Your task to perform on an android device: turn off javascript in the chrome app Image 0: 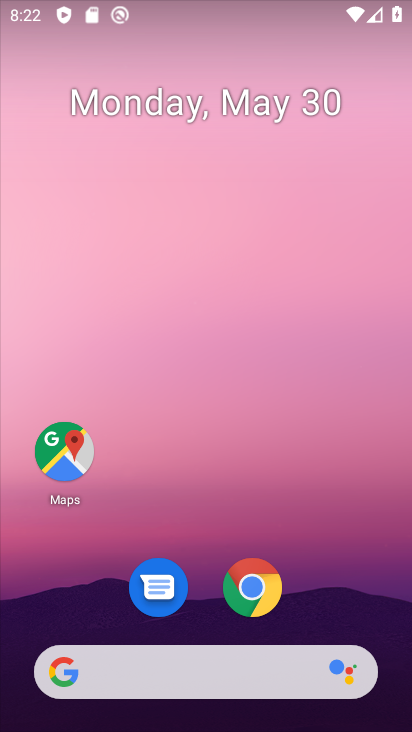
Step 0: click (251, 585)
Your task to perform on an android device: turn off javascript in the chrome app Image 1: 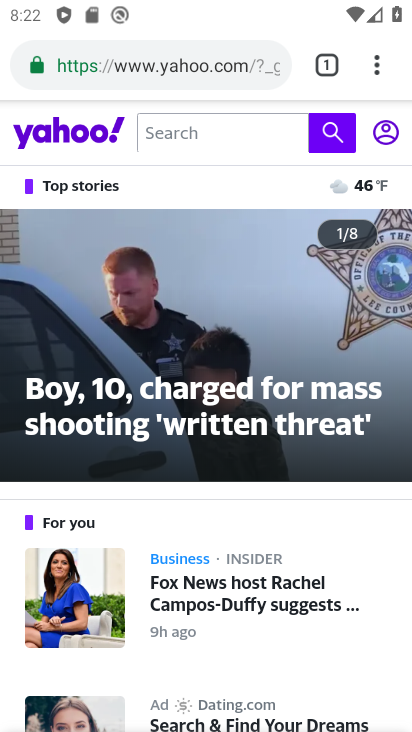
Step 1: click (378, 72)
Your task to perform on an android device: turn off javascript in the chrome app Image 2: 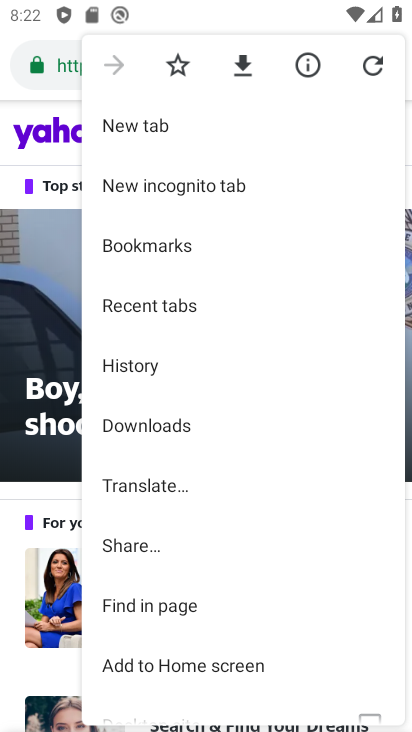
Step 2: drag from (168, 542) to (208, 198)
Your task to perform on an android device: turn off javascript in the chrome app Image 3: 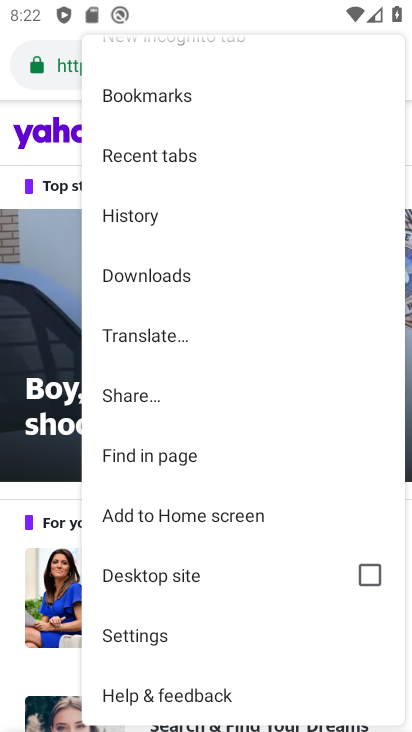
Step 3: click (162, 633)
Your task to perform on an android device: turn off javascript in the chrome app Image 4: 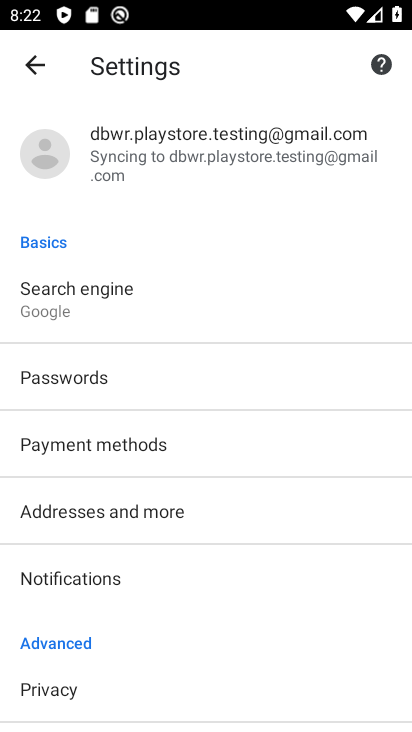
Step 4: drag from (147, 514) to (233, 147)
Your task to perform on an android device: turn off javascript in the chrome app Image 5: 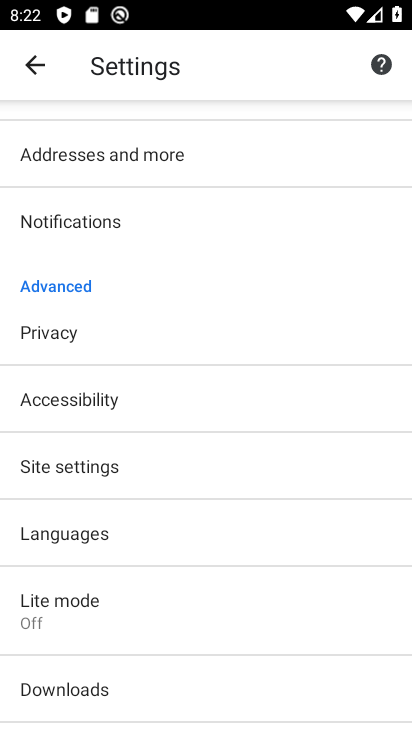
Step 5: click (120, 475)
Your task to perform on an android device: turn off javascript in the chrome app Image 6: 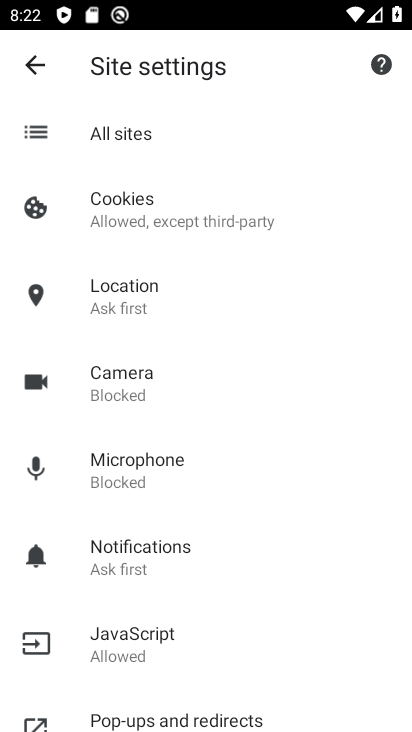
Step 6: click (143, 639)
Your task to perform on an android device: turn off javascript in the chrome app Image 7: 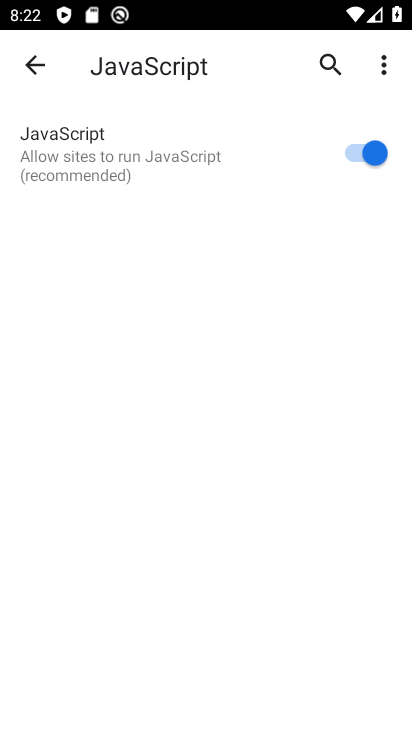
Step 7: click (356, 157)
Your task to perform on an android device: turn off javascript in the chrome app Image 8: 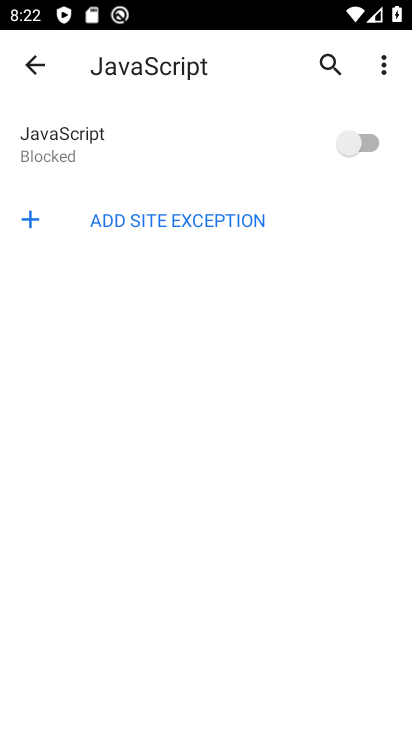
Step 8: task complete